Your task to perform on an android device: turn off location Image 0: 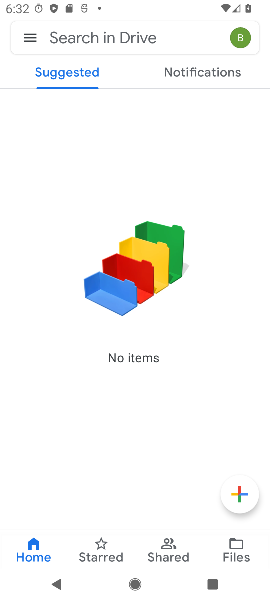
Step 0: press home button
Your task to perform on an android device: turn off location Image 1: 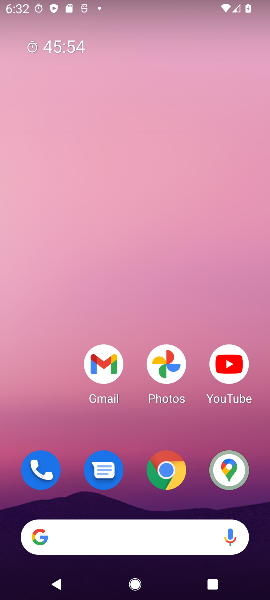
Step 1: drag from (155, 493) to (129, 4)
Your task to perform on an android device: turn off location Image 2: 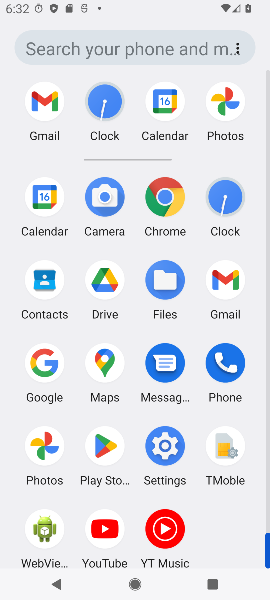
Step 2: click (165, 443)
Your task to perform on an android device: turn off location Image 3: 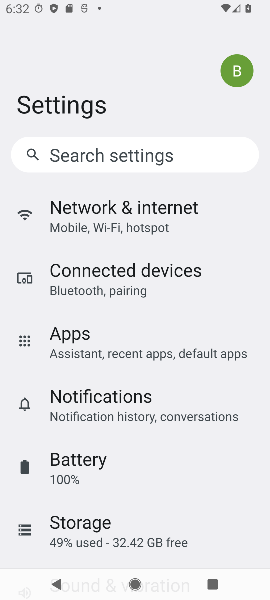
Step 3: drag from (107, 539) to (105, 234)
Your task to perform on an android device: turn off location Image 4: 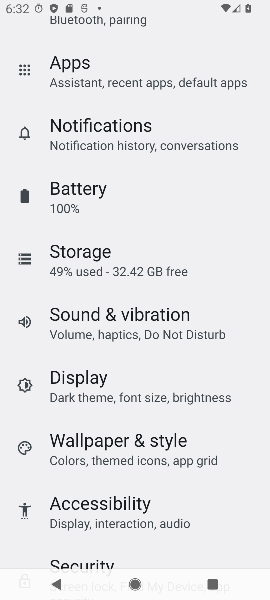
Step 4: drag from (154, 502) to (120, 160)
Your task to perform on an android device: turn off location Image 5: 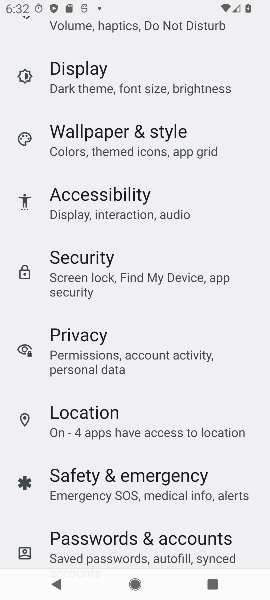
Step 5: click (101, 417)
Your task to perform on an android device: turn off location Image 6: 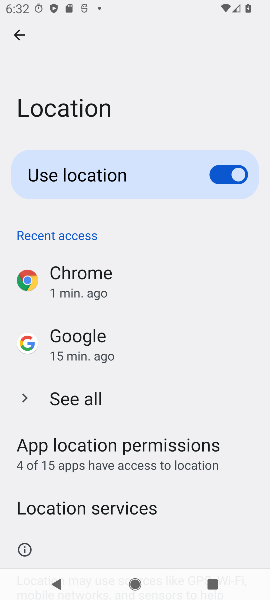
Step 6: click (181, 162)
Your task to perform on an android device: turn off location Image 7: 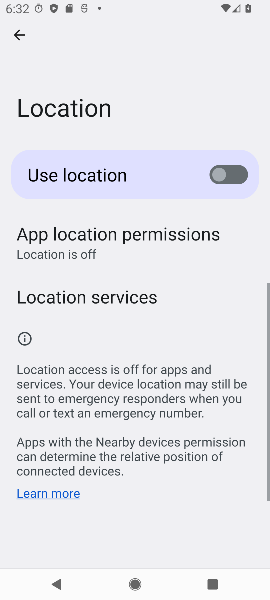
Step 7: task complete